Your task to perform on an android device: check android version Image 0: 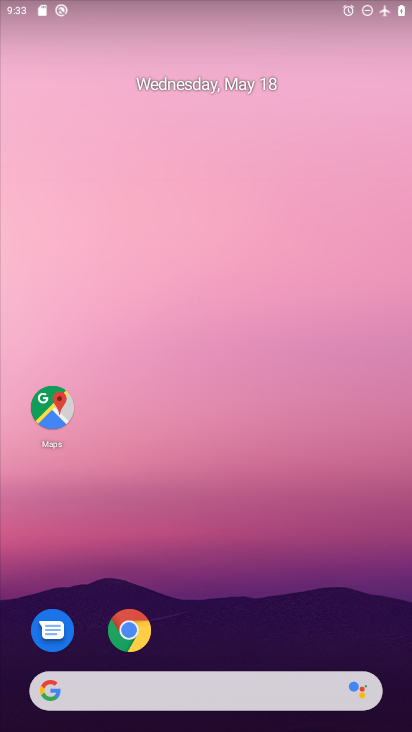
Step 0: drag from (214, 658) to (281, 105)
Your task to perform on an android device: check android version Image 1: 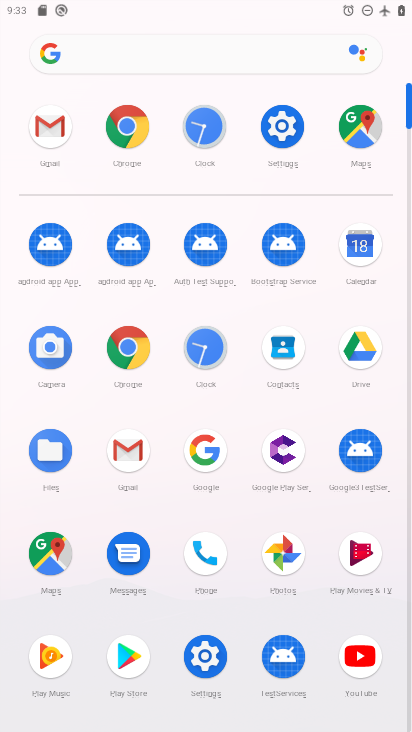
Step 1: click (197, 654)
Your task to perform on an android device: check android version Image 2: 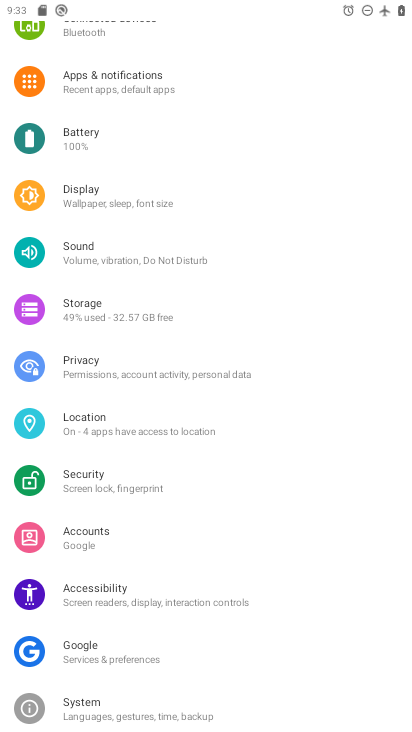
Step 2: drag from (222, 618) to (169, 74)
Your task to perform on an android device: check android version Image 3: 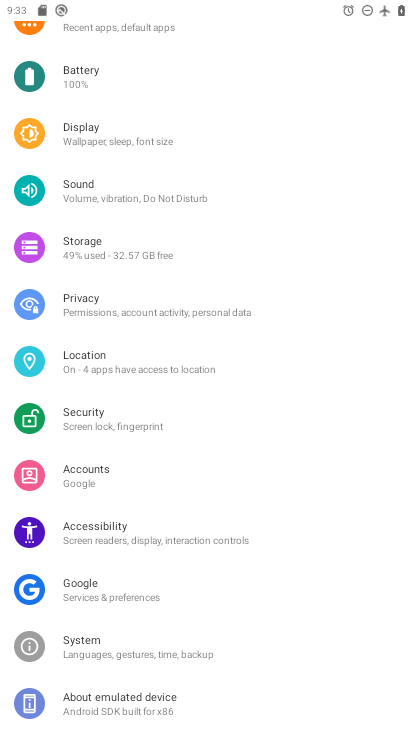
Step 3: click (113, 697)
Your task to perform on an android device: check android version Image 4: 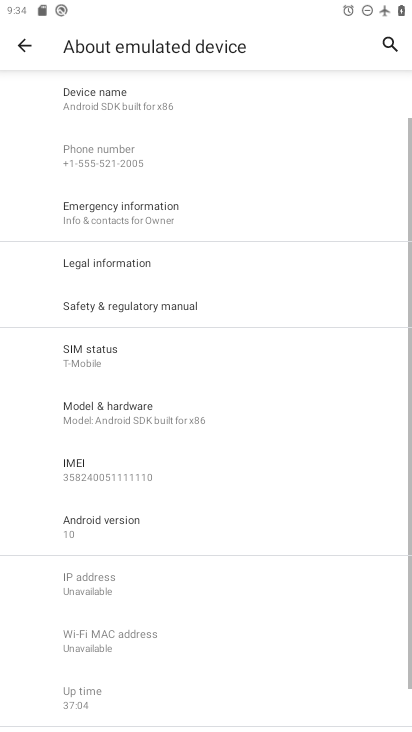
Step 4: click (106, 522)
Your task to perform on an android device: check android version Image 5: 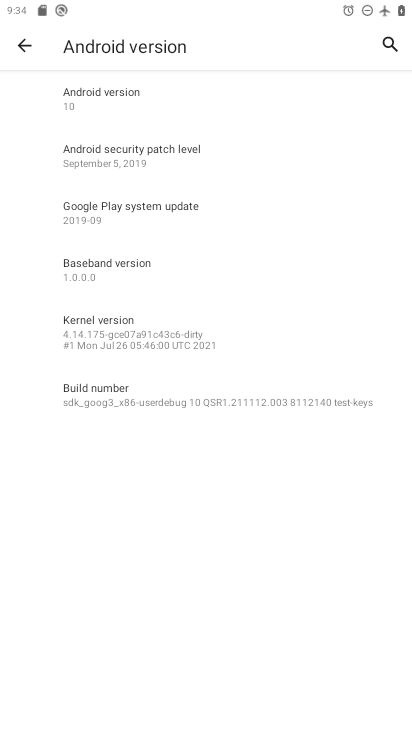
Step 5: task complete